Your task to perform on an android device: What's on my calendar today? Image 0: 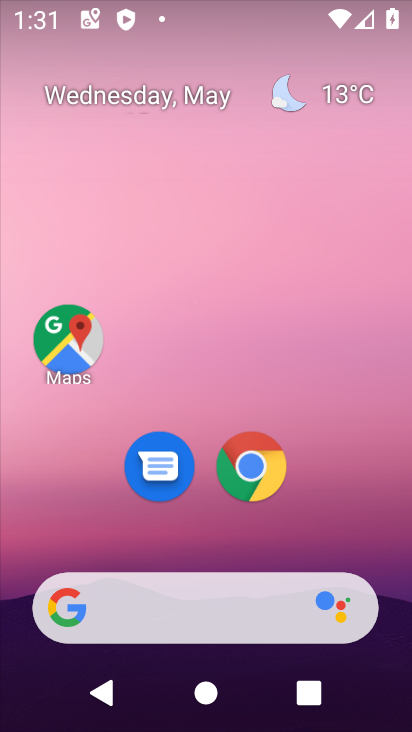
Step 0: press home button
Your task to perform on an android device: What's on my calendar today? Image 1: 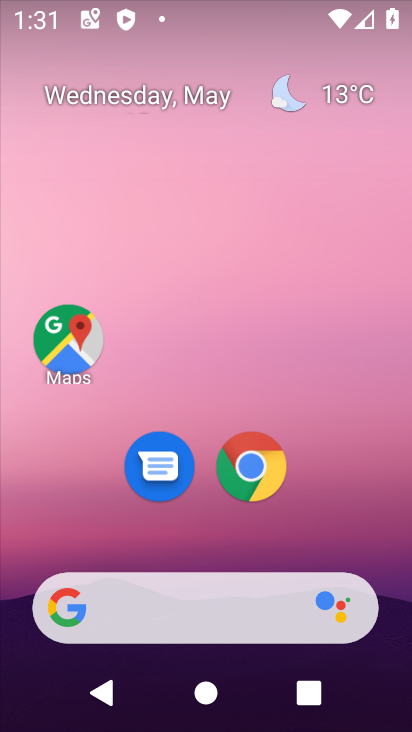
Step 1: drag from (371, 499) to (363, 95)
Your task to perform on an android device: What's on my calendar today? Image 2: 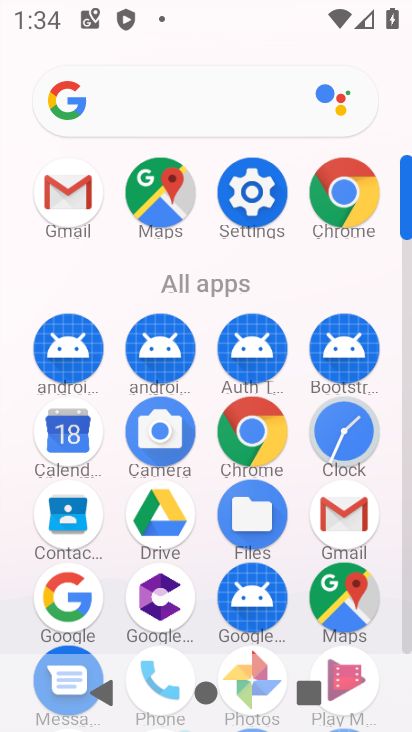
Step 2: drag from (209, 443) to (199, 361)
Your task to perform on an android device: What's on my calendar today? Image 3: 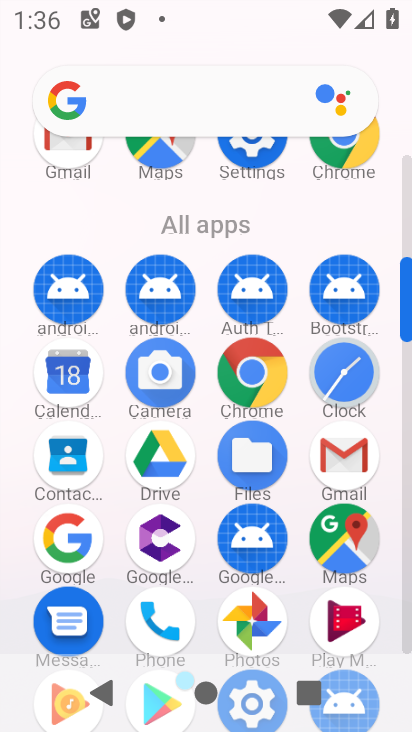
Step 3: drag from (204, 386) to (195, 328)
Your task to perform on an android device: What's on my calendar today? Image 4: 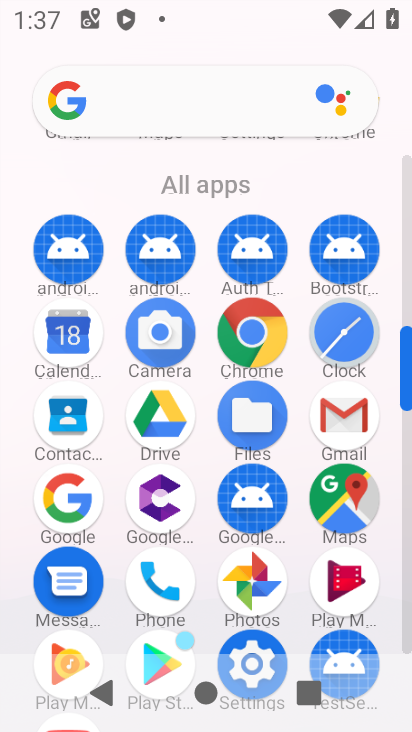
Step 4: click (75, 326)
Your task to perform on an android device: What's on my calendar today? Image 5: 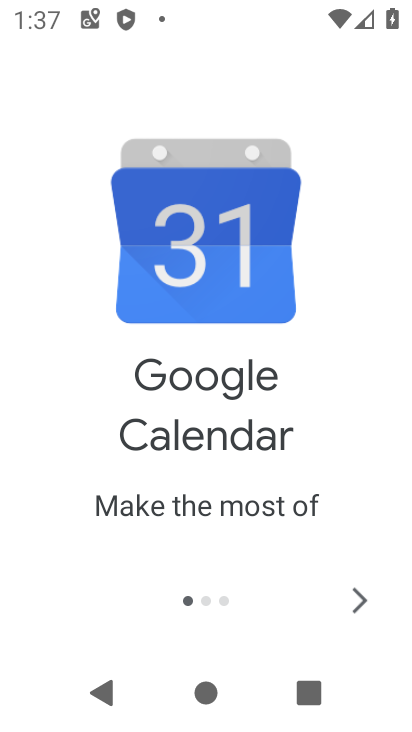
Step 5: click (357, 594)
Your task to perform on an android device: What's on my calendar today? Image 6: 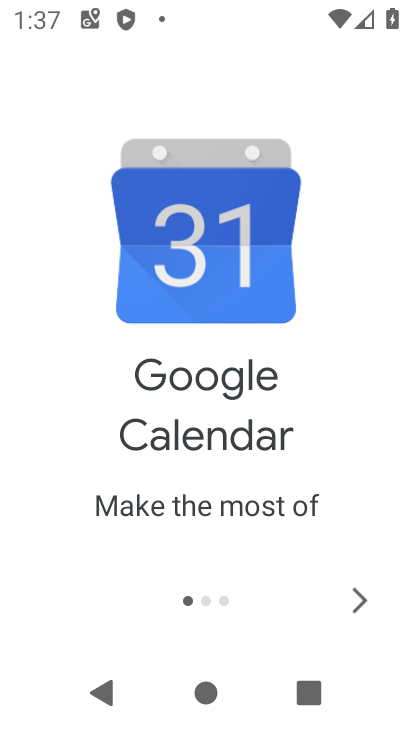
Step 6: click (357, 594)
Your task to perform on an android device: What's on my calendar today? Image 7: 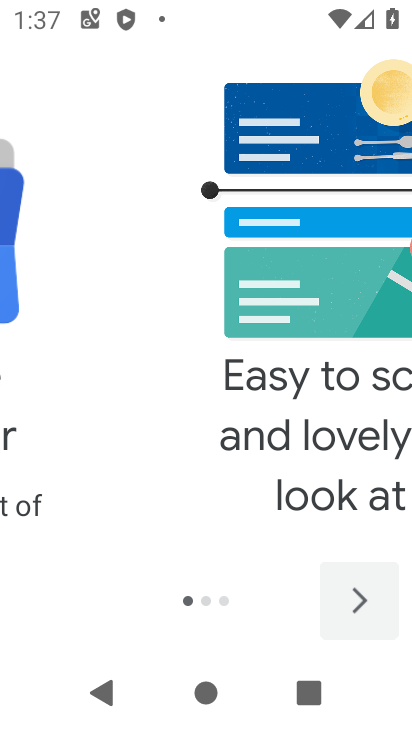
Step 7: click (357, 594)
Your task to perform on an android device: What's on my calendar today? Image 8: 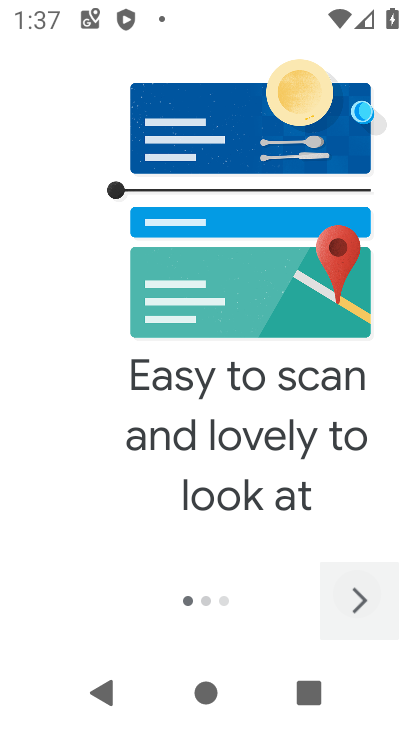
Step 8: click (357, 594)
Your task to perform on an android device: What's on my calendar today? Image 9: 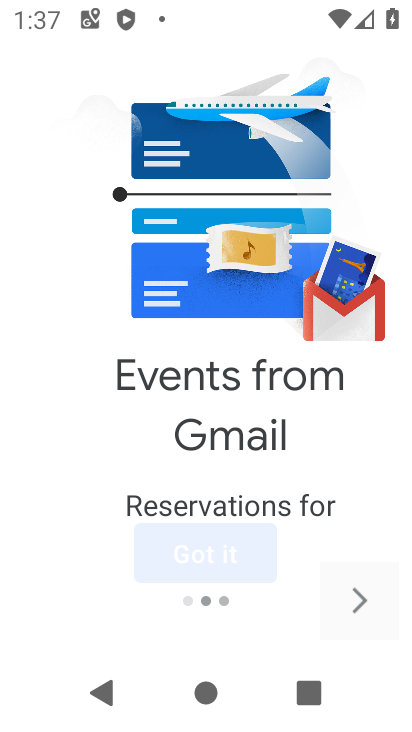
Step 9: click (357, 594)
Your task to perform on an android device: What's on my calendar today? Image 10: 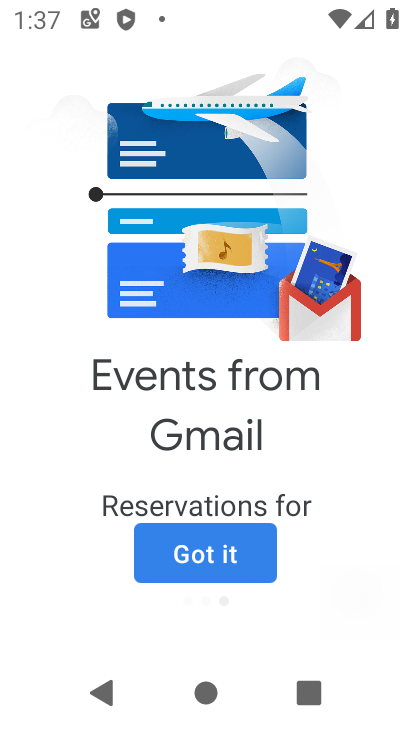
Step 10: click (357, 594)
Your task to perform on an android device: What's on my calendar today? Image 11: 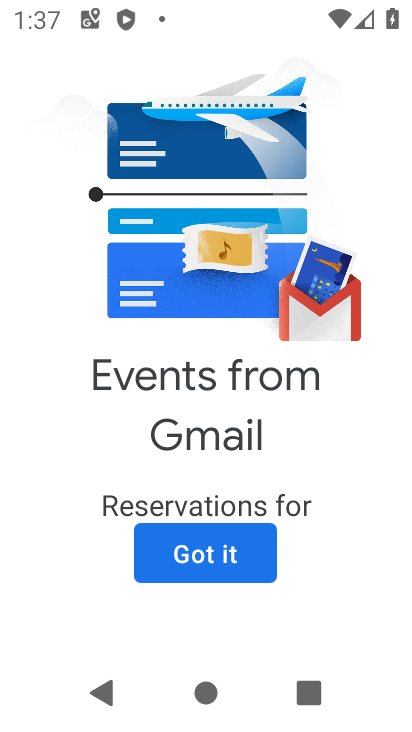
Step 11: click (357, 594)
Your task to perform on an android device: What's on my calendar today? Image 12: 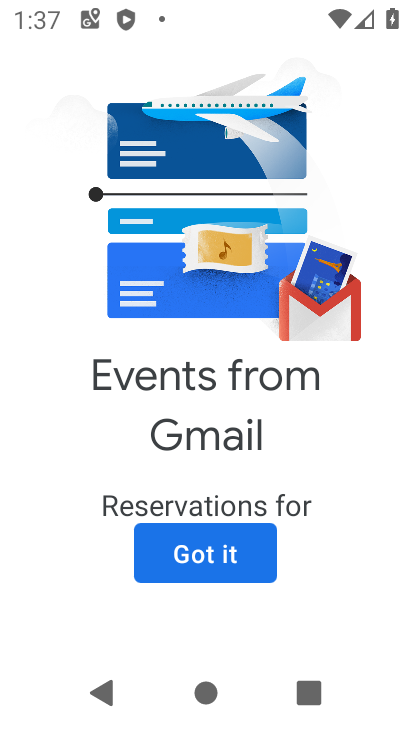
Step 12: click (166, 558)
Your task to perform on an android device: What's on my calendar today? Image 13: 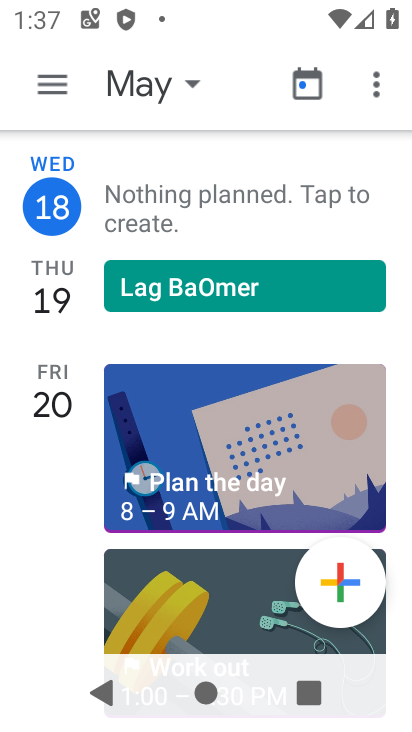
Step 13: click (194, 551)
Your task to perform on an android device: What's on my calendar today? Image 14: 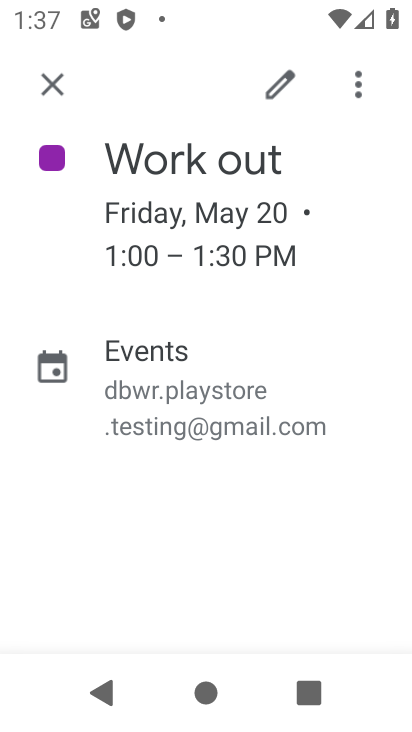
Step 14: click (55, 89)
Your task to perform on an android device: What's on my calendar today? Image 15: 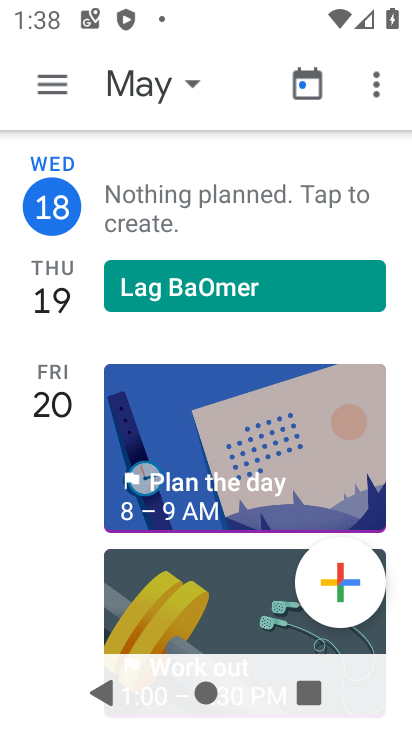
Step 15: click (184, 81)
Your task to perform on an android device: What's on my calendar today? Image 16: 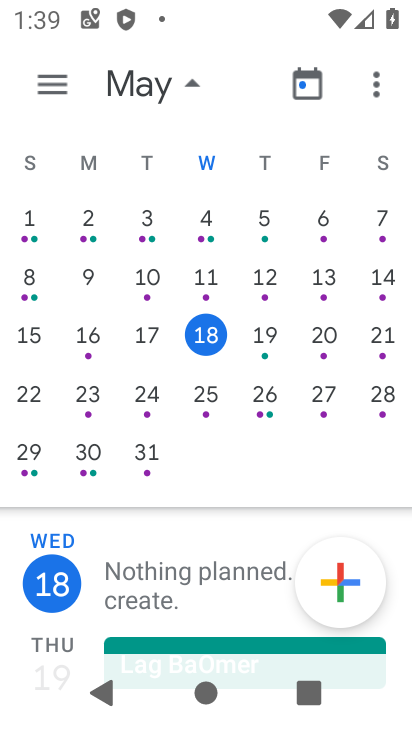
Step 16: click (200, 74)
Your task to perform on an android device: What's on my calendar today? Image 17: 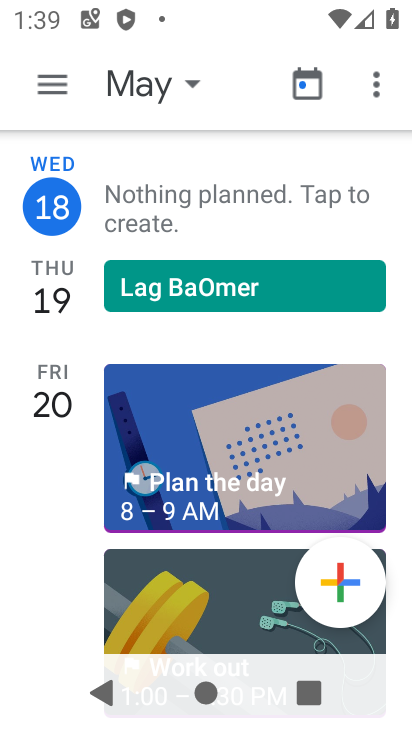
Step 17: task complete